Your task to perform on an android device: What's on the menu at Domino's? Image 0: 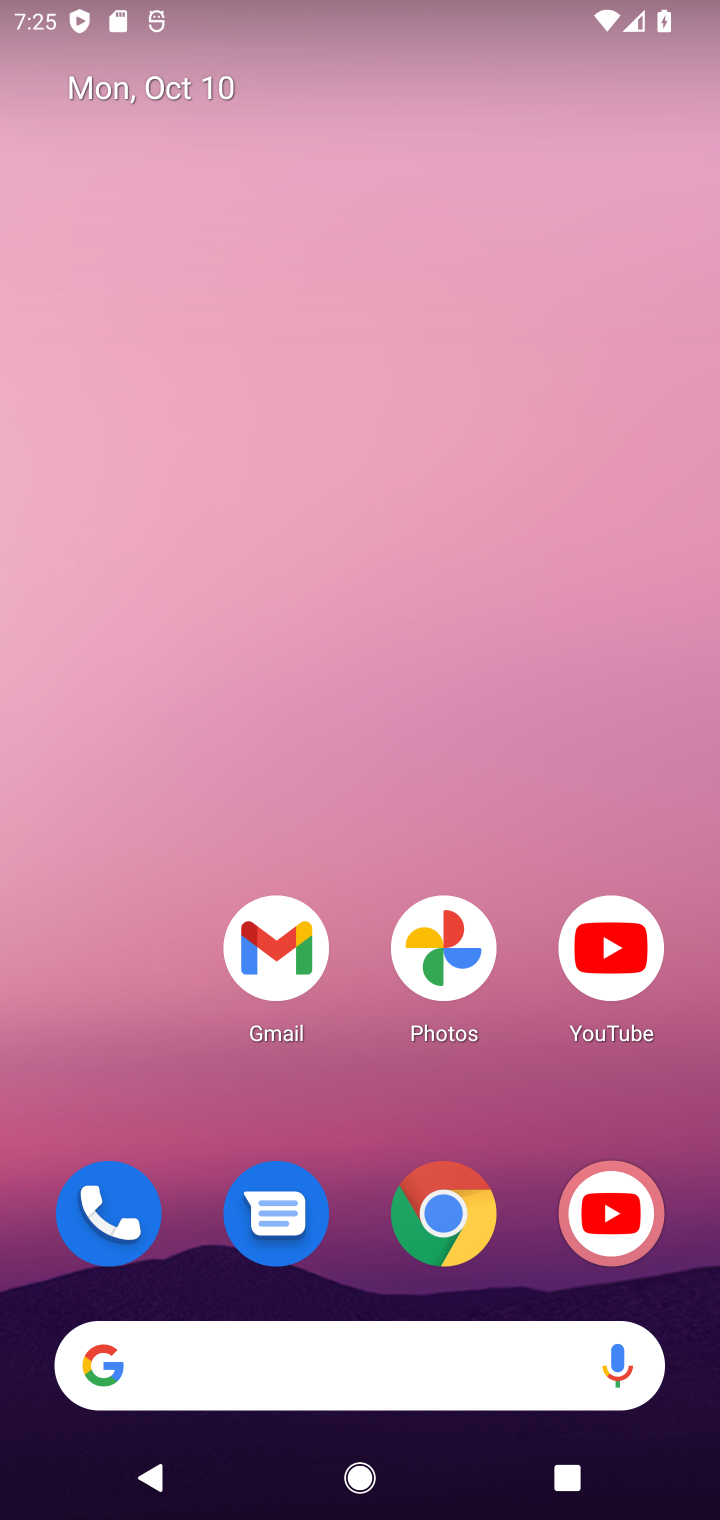
Step 0: click (327, 1383)
Your task to perform on an android device: What's on the menu at Domino's? Image 1: 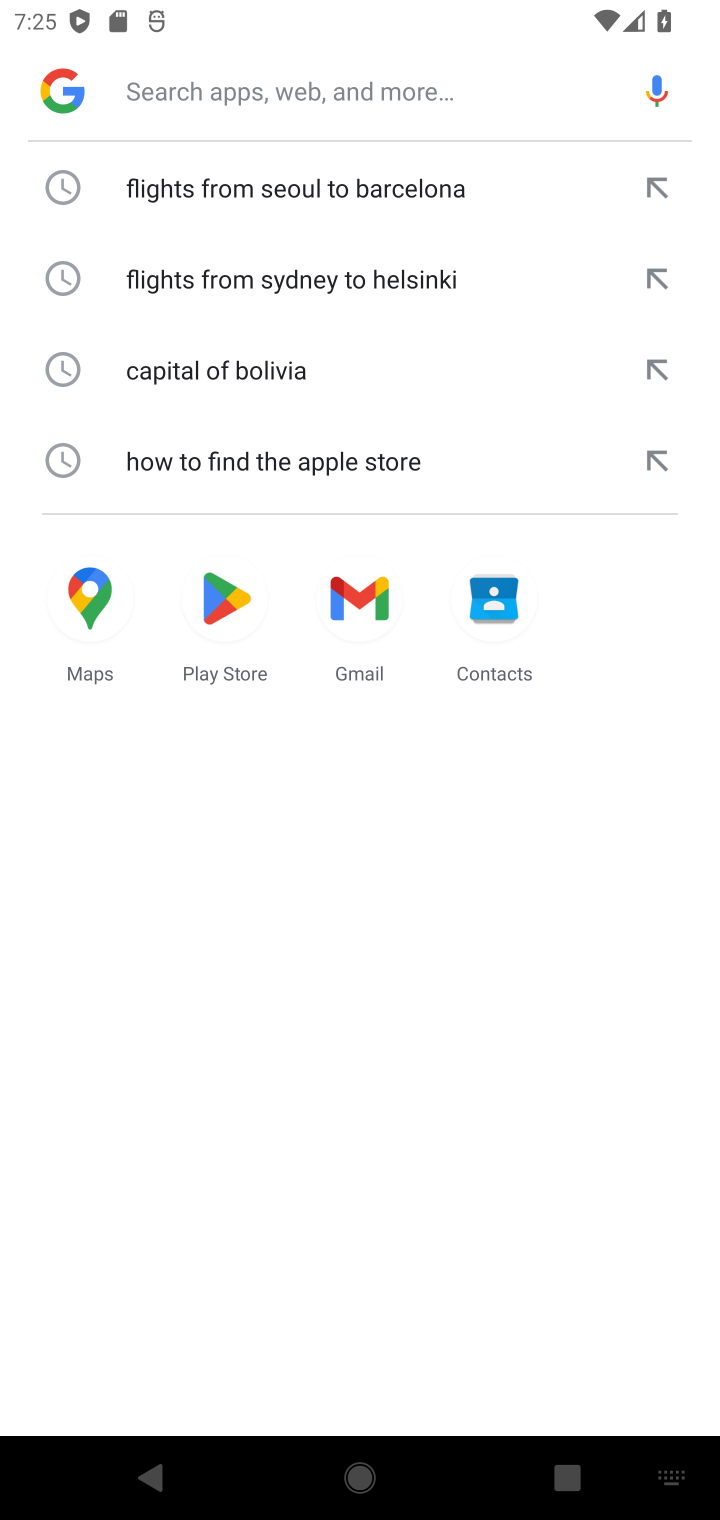
Step 1: click (291, 102)
Your task to perform on an android device: What's on the menu at Domino's? Image 2: 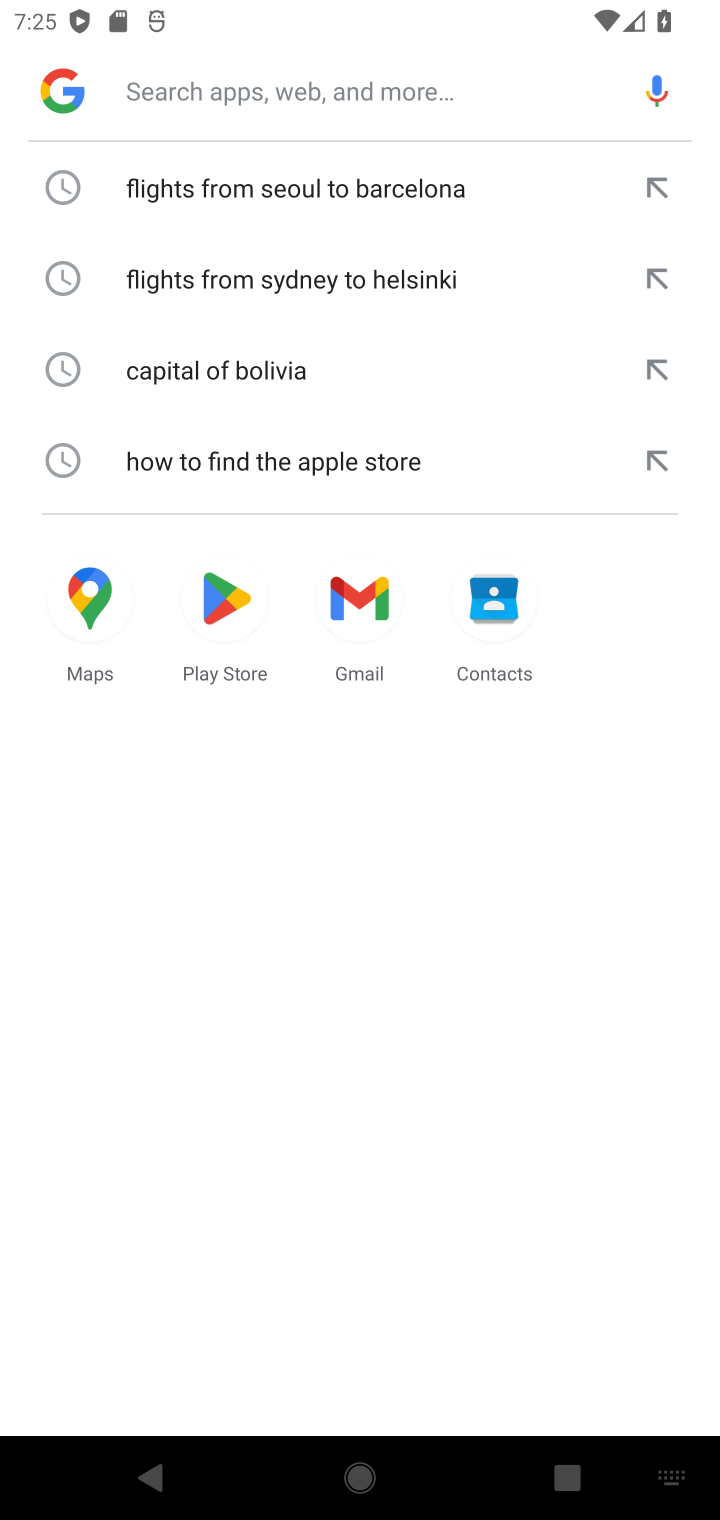
Step 2: type "What's on the menu at Domino's?"
Your task to perform on an android device: What's on the menu at Domino's? Image 3: 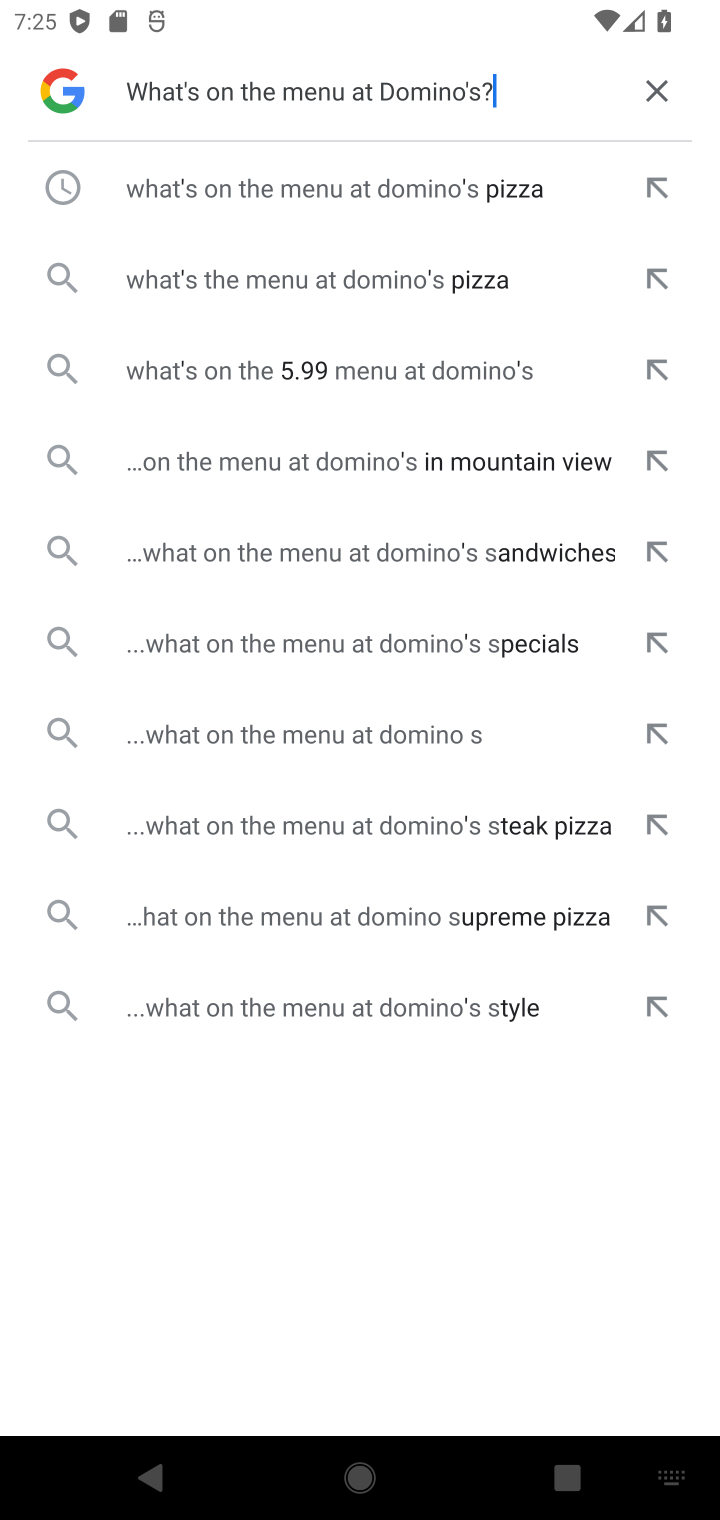
Step 3: click (310, 181)
Your task to perform on an android device: What's on the menu at Domino's? Image 4: 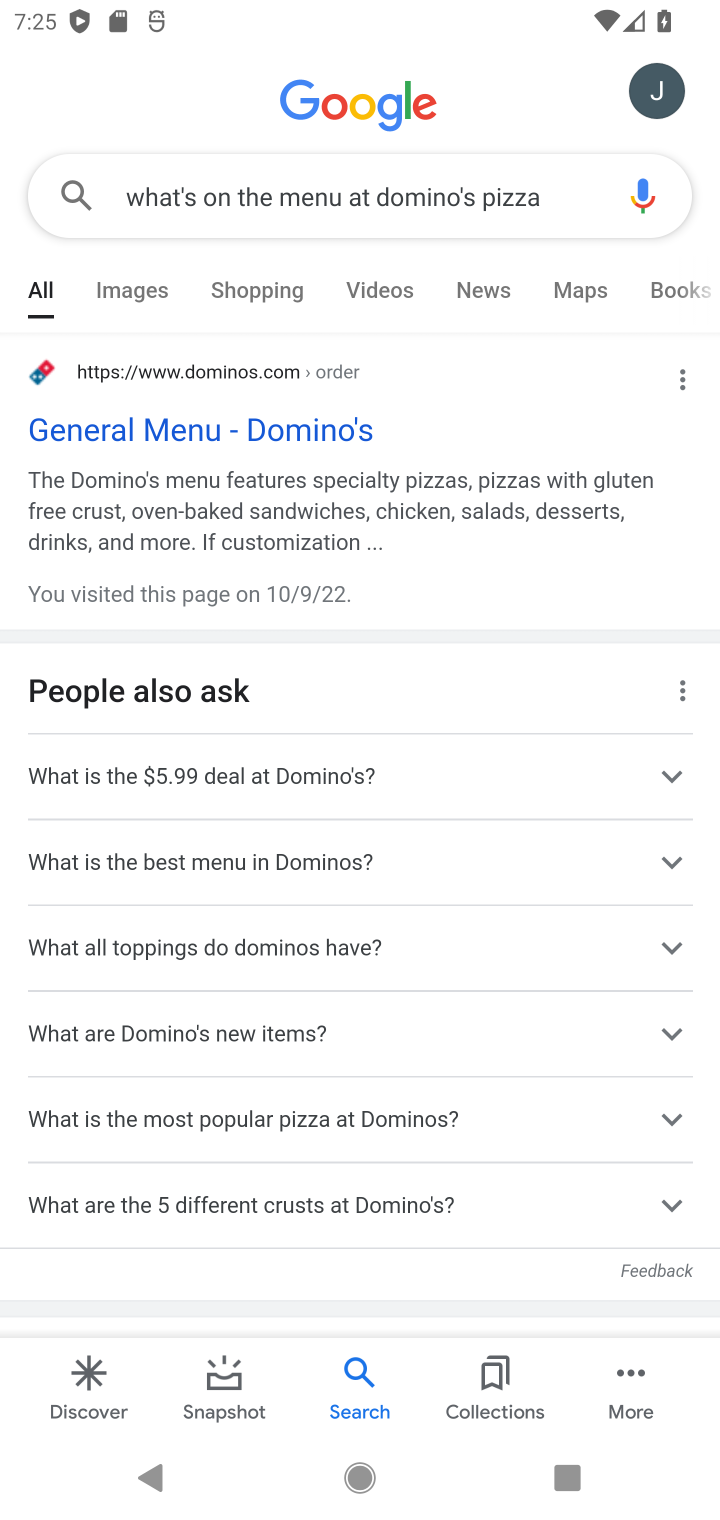
Step 4: drag from (224, 1189) to (256, 1107)
Your task to perform on an android device: What's on the menu at Domino's? Image 5: 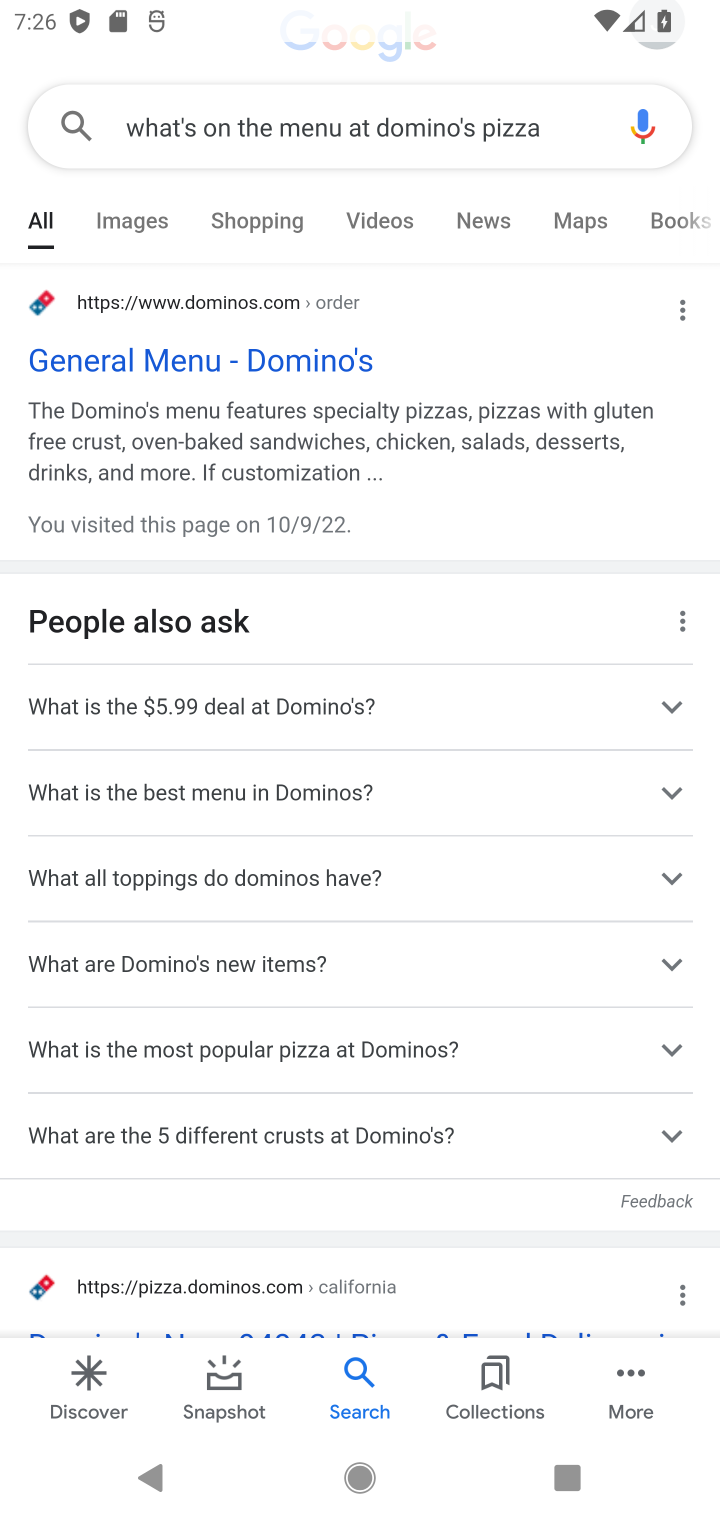
Step 5: click (168, 386)
Your task to perform on an android device: What's on the menu at Domino's? Image 6: 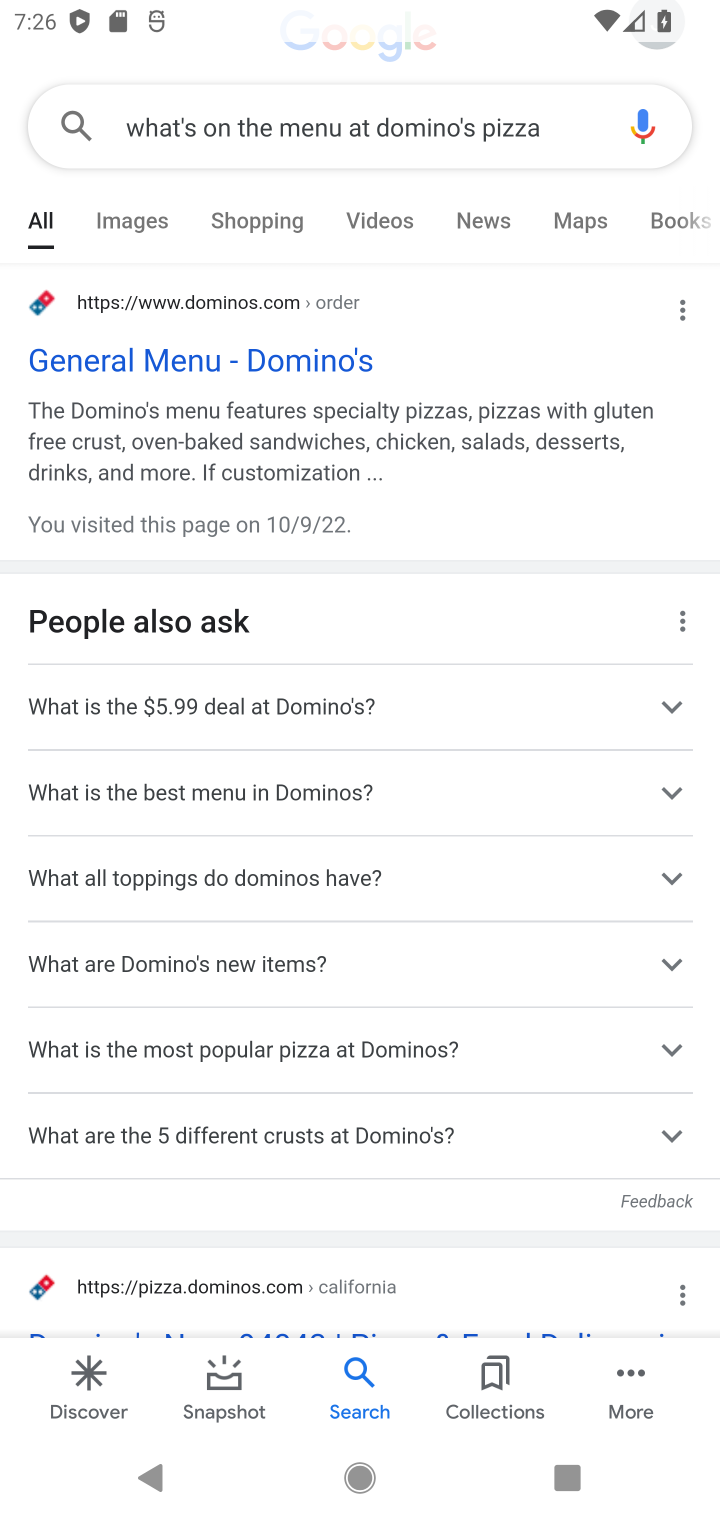
Step 6: click (226, 364)
Your task to perform on an android device: What's on the menu at Domino's? Image 7: 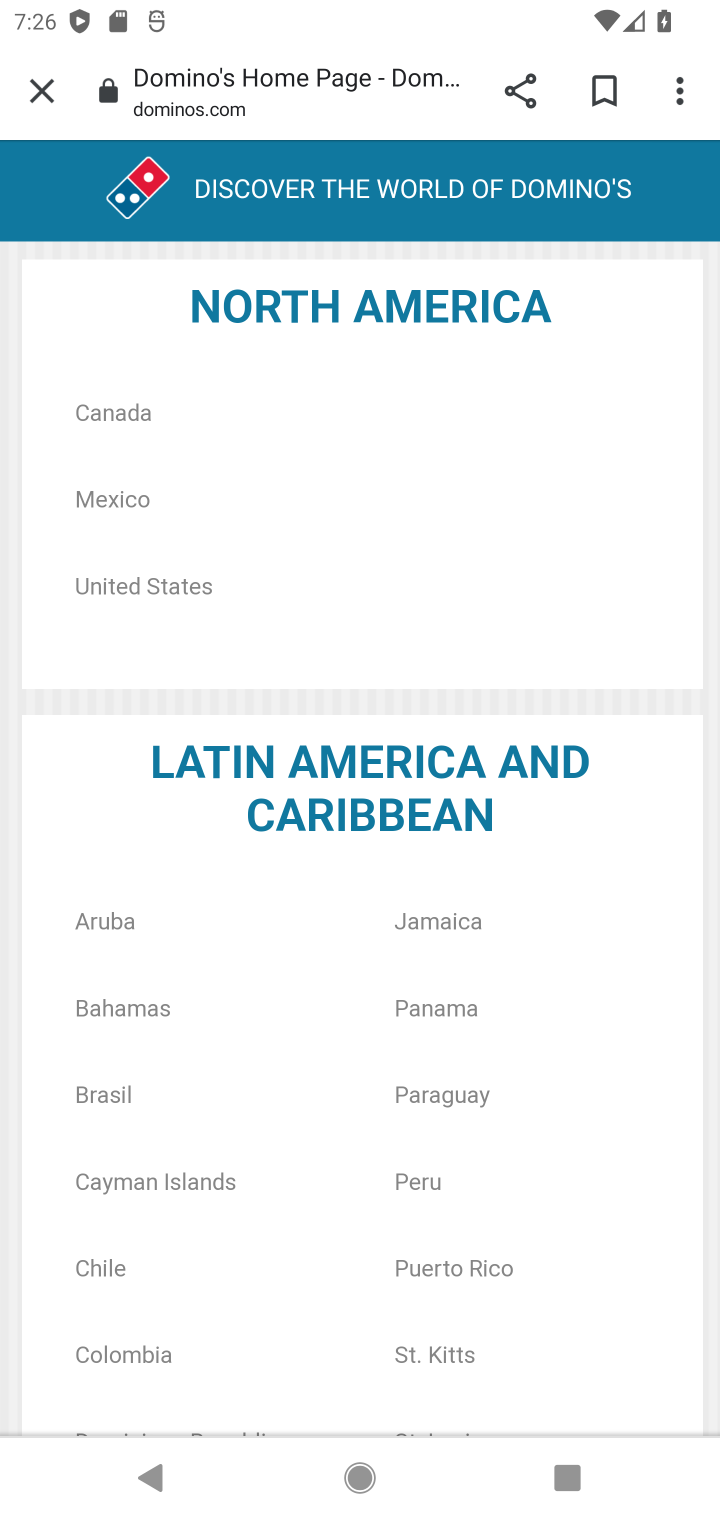
Step 7: task complete